Your task to perform on an android device: What time is it in Berlin? Image 0: 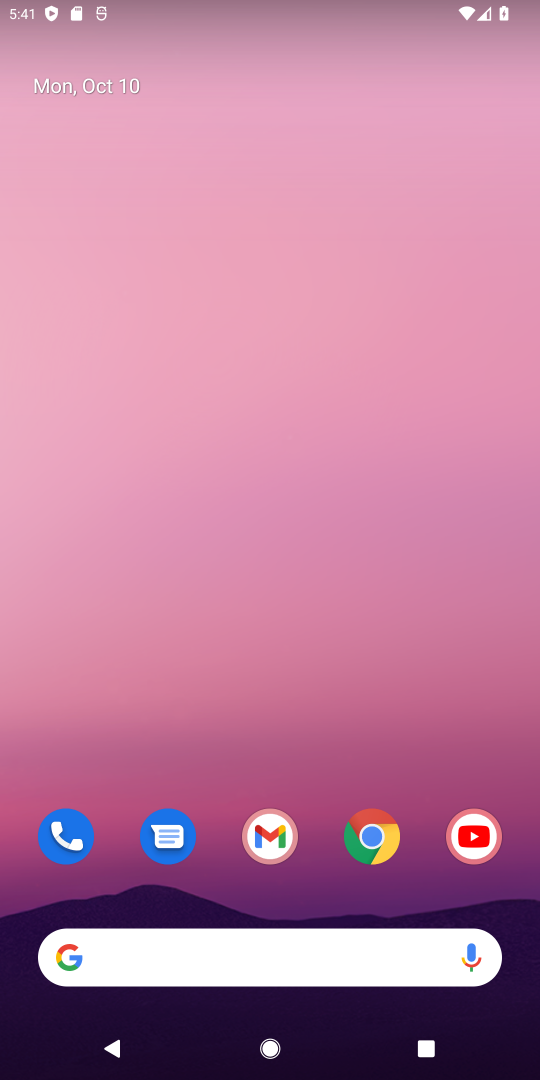
Step 0: click (370, 836)
Your task to perform on an android device: What time is it in Berlin? Image 1: 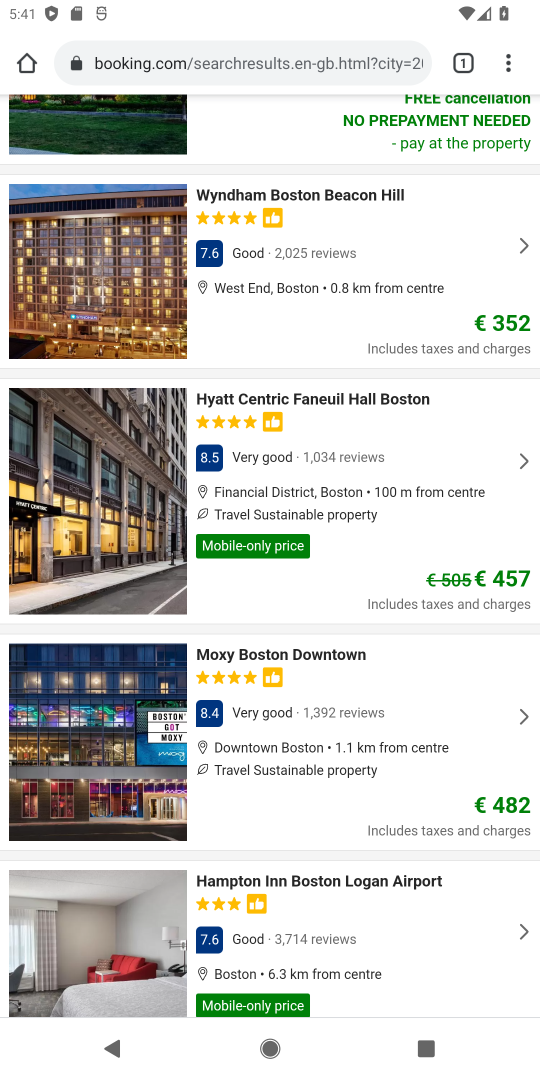
Step 1: click (237, 55)
Your task to perform on an android device: What time is it in Berlin? Image 2: 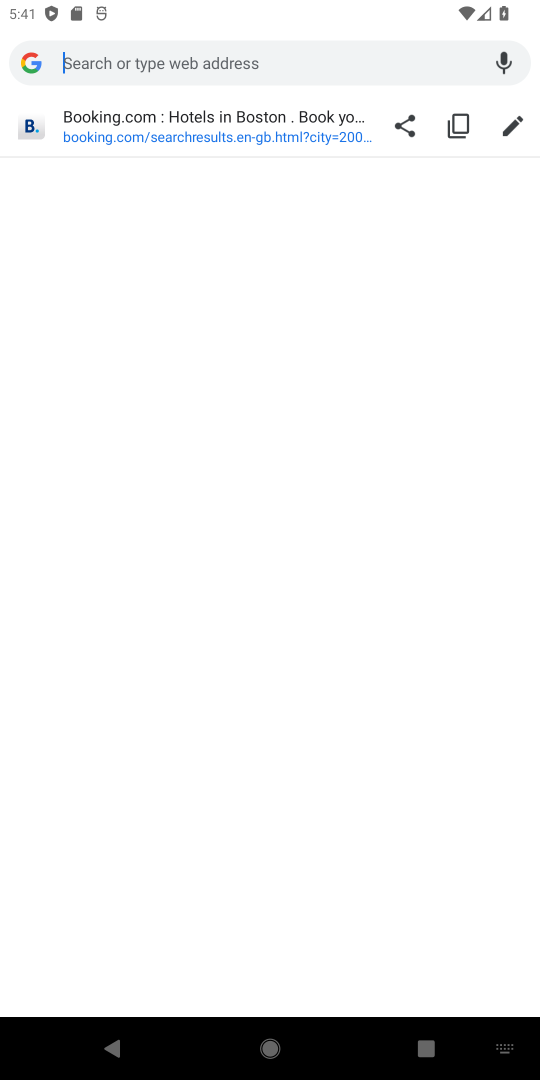
Step 2: type "time in berlin?"
Your task to perform on an android device: What time is it in Berlin? Image 3: 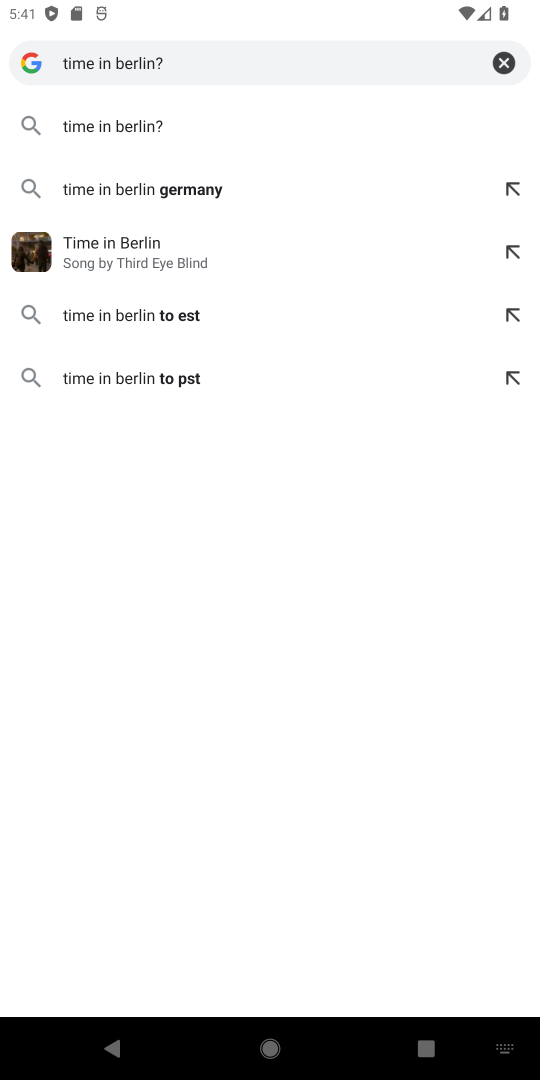
Step 3: click (95, 134)
Your task to perform on an android device: What time is it in Berlin? Image 4: 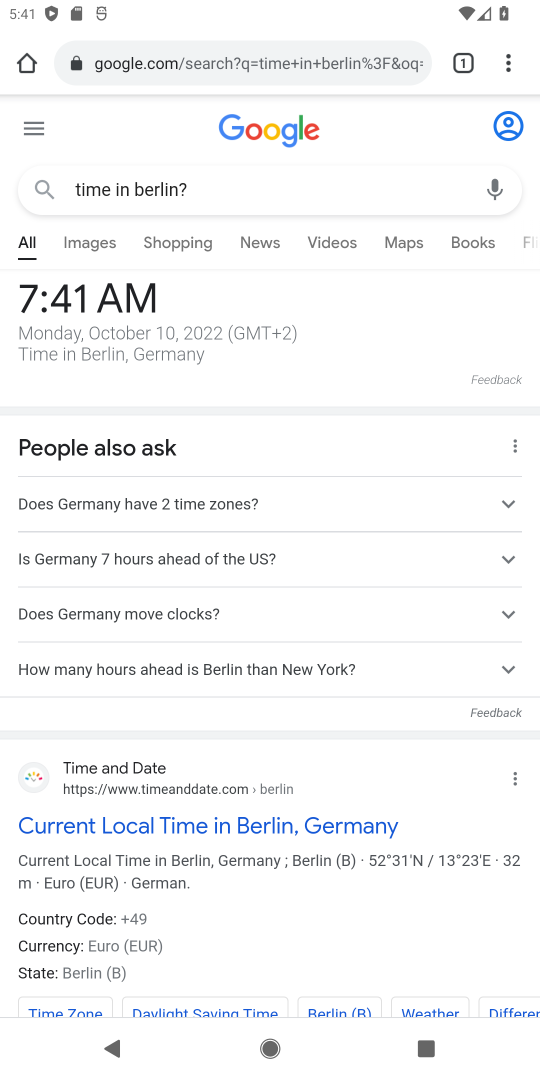
Step 4: task complete